Your task to perform on an android device: Open the Play Movies app and select the watchlist tab. Image 0: 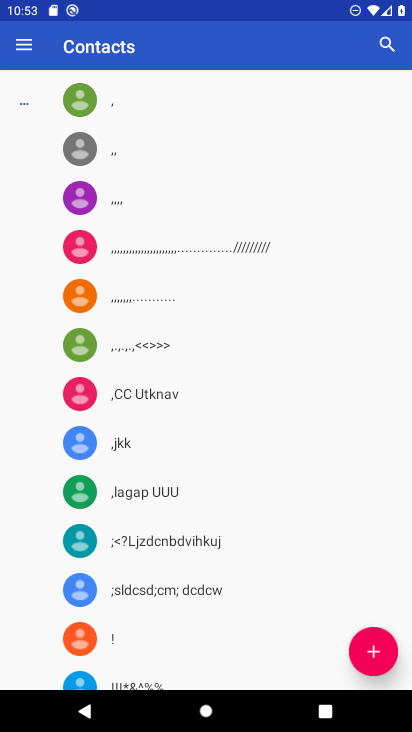
Step 0: press home button
Your task to perform on an android device: Open the Play Movies app and select the watchlist tab. Image 1: 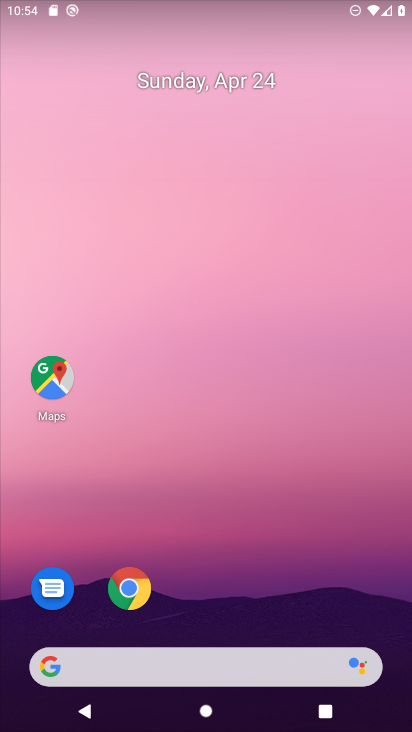
Step 1: drag from (194, 662) to (170, 366)
Your task to perform on an android device: Open the Play Movies app and select the watchlist tab. Image 2: 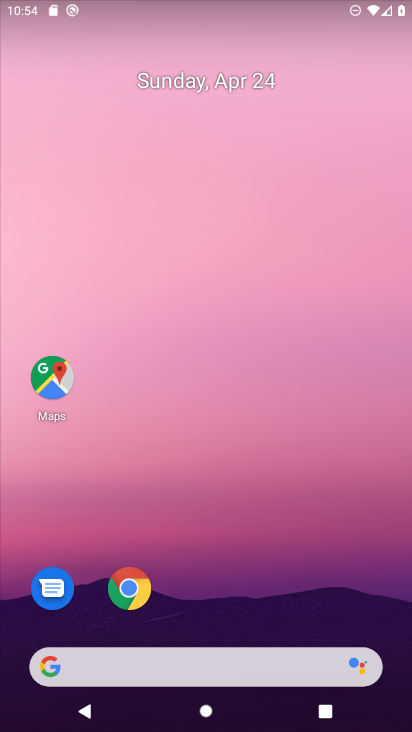
Step 2: drag from (195, 662) to (332, 10)
Your task to perform on an android device: Open the Play Movies app and select the watchlist tab. Image 3: 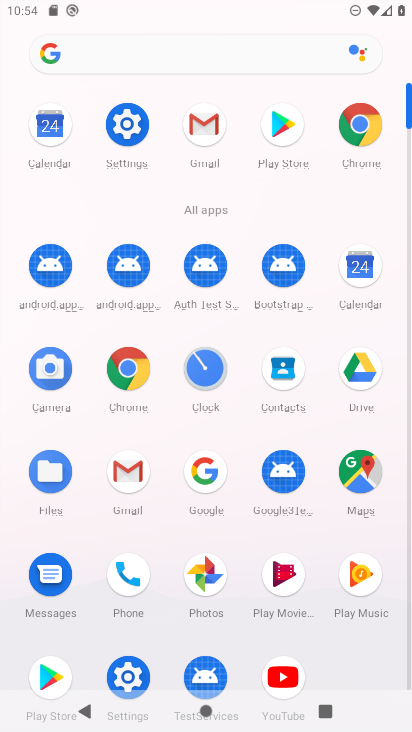
Step 3: click (279, 575)
Your task to perform on an android device: Open the Play Movies app and select the watchlist tab. Image 4: 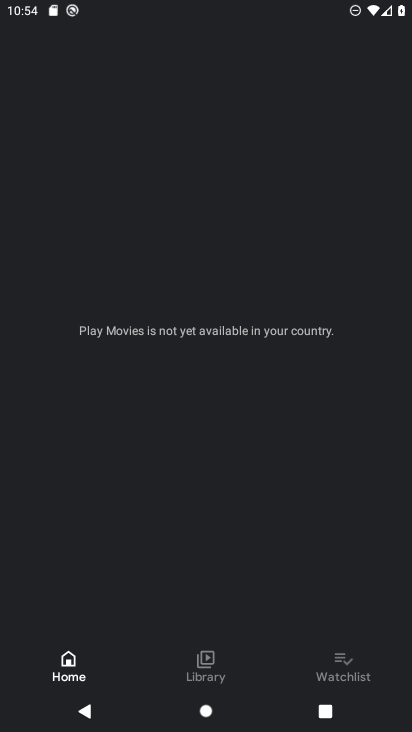
Step 4: click (351, 659)
Your task to perform on an android device: Open the Play Movies app and select the watchlist tab. Image 5: 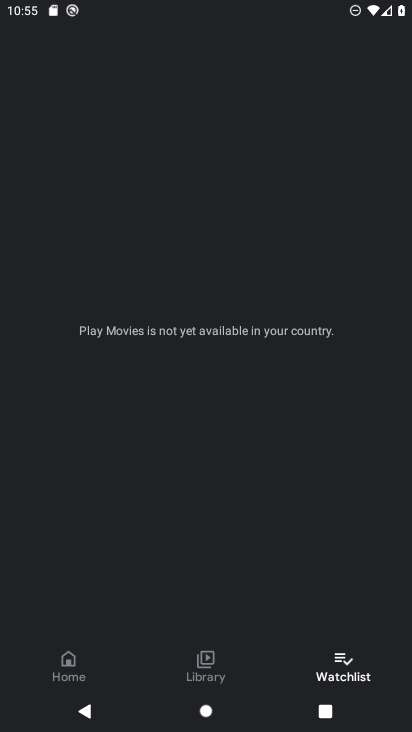
Step 5: task complete